Your task to perform on an android device: see sites visited before in the chrome app Image 0: 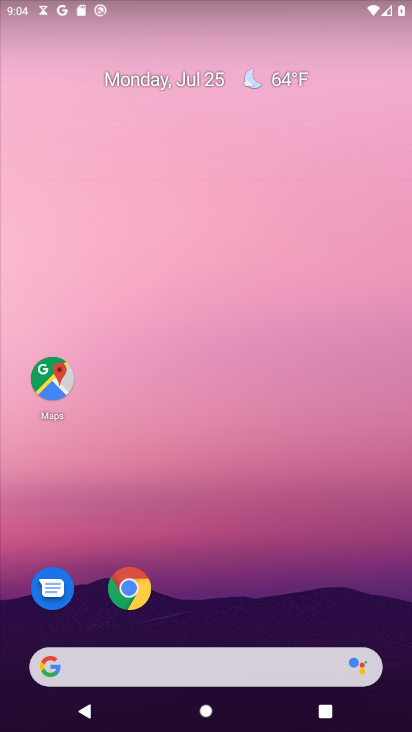
Step 0: click (122, 607)
Your task to perform on an android device: see sites visited before in the chrome app Image 1: 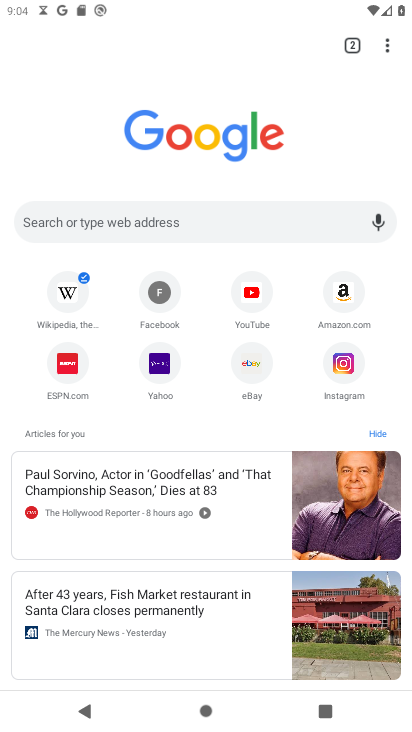
Step 1: task complete